Your task to perform on an android device: Search for Italian restaurants on Maps Image 0: 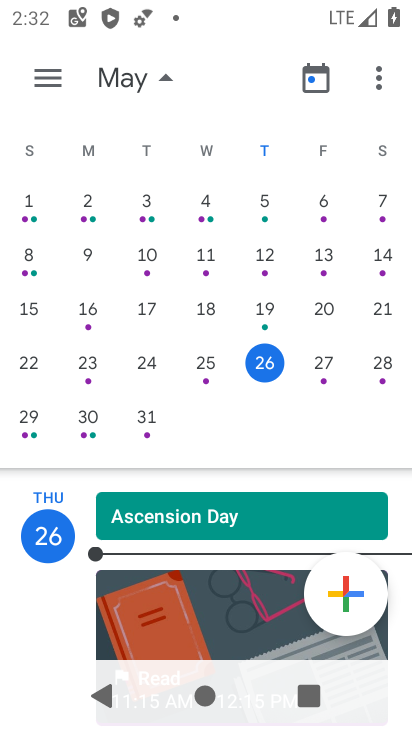
Step 0: press home button
Your task to perform on an android device: Search for Italian restaurants on Maps Image 1: 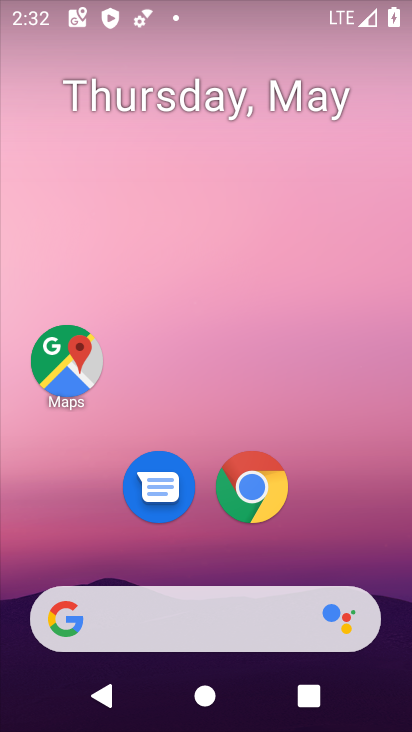
Step 1: drag from (231, 643) to (231, 89)
Your task to perform on an android device: Search for Italian restaurants on Maps Image 2: 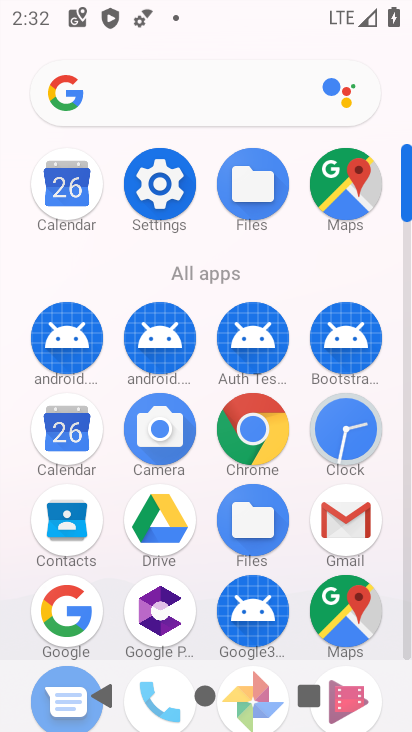
Step 2: click (348, 620)
Your task to perform on an android device: Search for Italian restaurants on Maps Image 3: 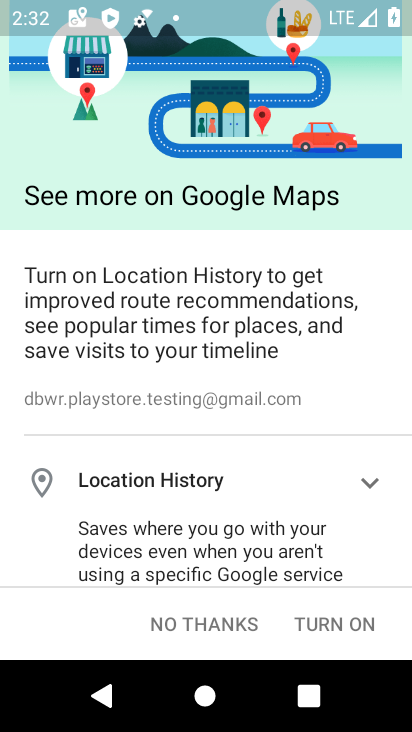
Step 3: click (350, 619)
Your task to perform on an android device: Search for Italian restaurants on Maps Image 4: 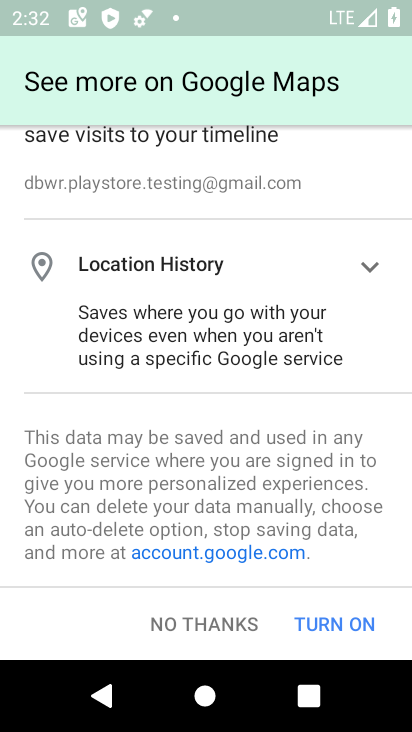
Step 4: click (358, 620)
Your task to perform on an android device: Search for Italian restaurants on Maps Image 5: 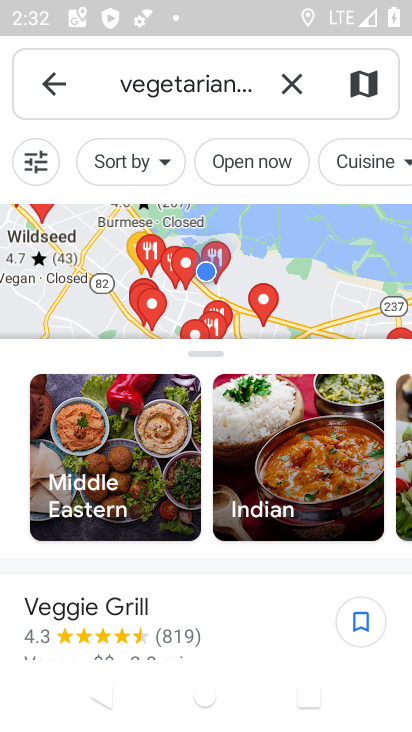
Step 5: click (287, 75)
Your task to perform on an android device: Search for Italian restaurants on Maps Image 6: 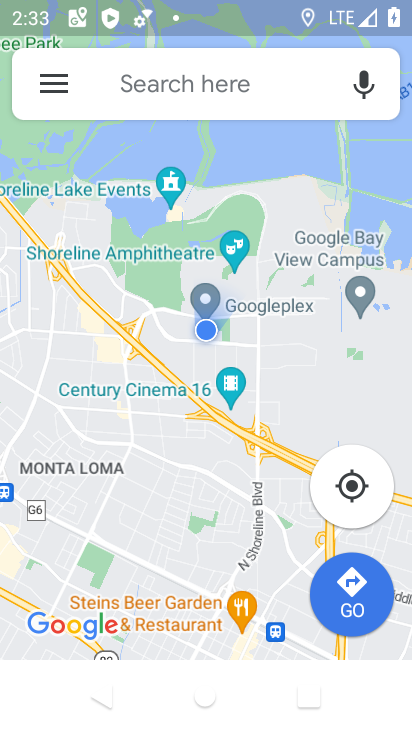
Step 6: click (233, 78)
Your task to perform on an android device: Search for Italian restaurants on Maps Image 7: 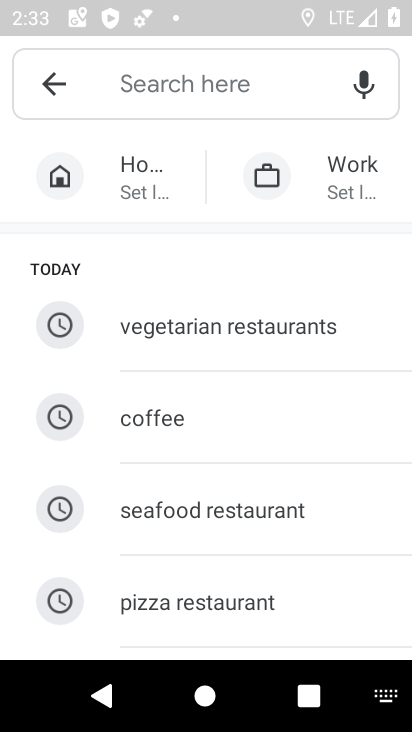
Step 7: drag from (202, 565) to (226, 165)
Your task to perform on an android device: Search for Italian restaurants on Maps Image 8: 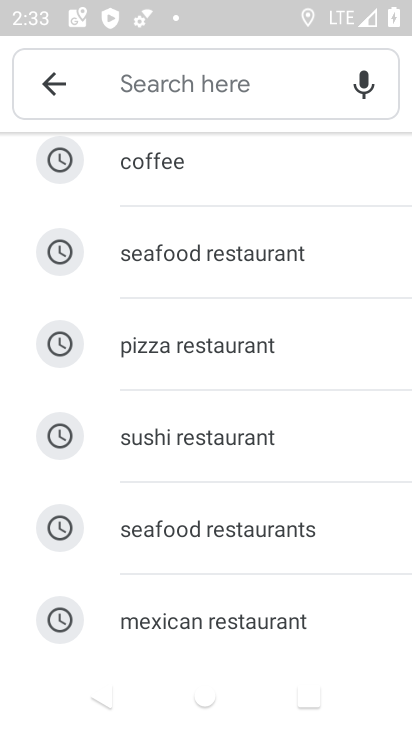
Step 8: drag from (222, 525) to (251, 258)
Your task to perform on an android device: Search for Italian restaurants on Maps Image 9: 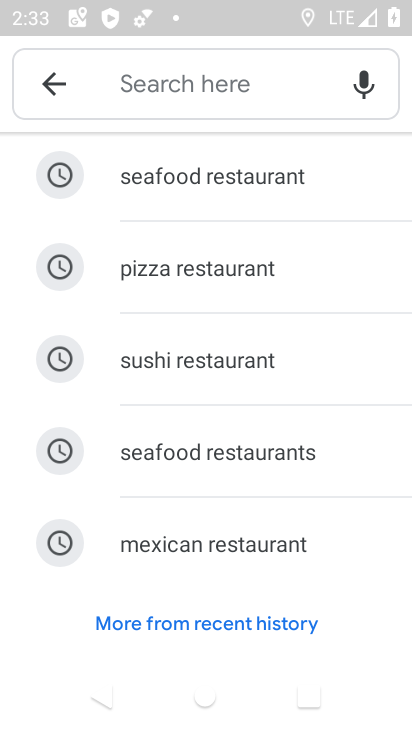
Step 9: click (291, 87)
Your task to perform on an android device: Search for Italian restaurants on Maps Image 10: 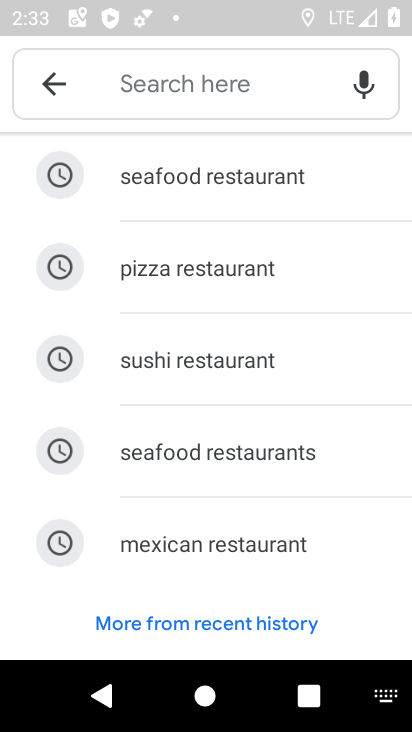
Step 10: type "italian"
Your task to perform on an android device: Search for Italian restaurants on Maps Image 11: 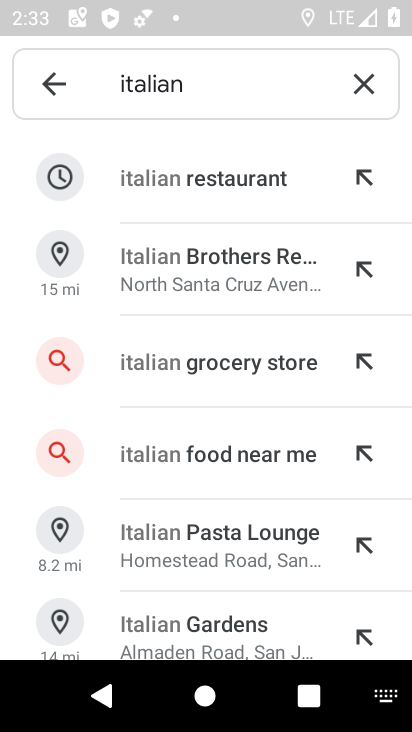
Step 11: click (230, 185)
Your task to perform on an android device: Search for Italian restaurants on Maps Image 12: 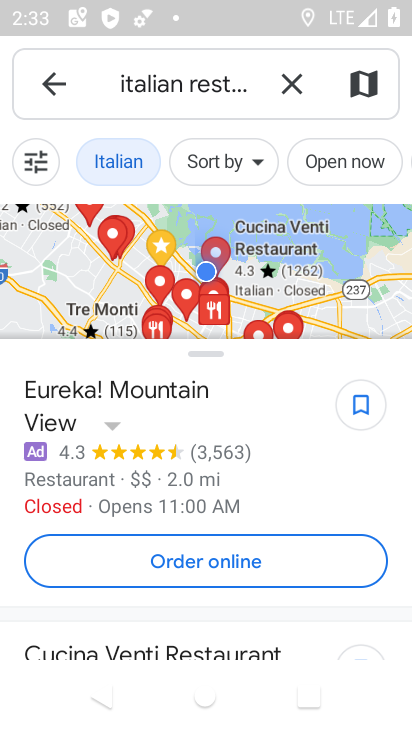
Step 12: task complete